Your task to perform on an android device: Check the weather Image 0: 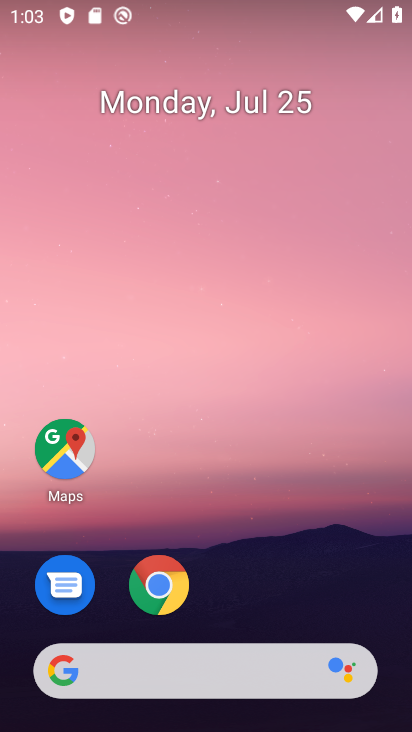
Step 0: drag from (225, 650) to (243, 8)
Your task to perform on an android device: Check the weather Image 1: 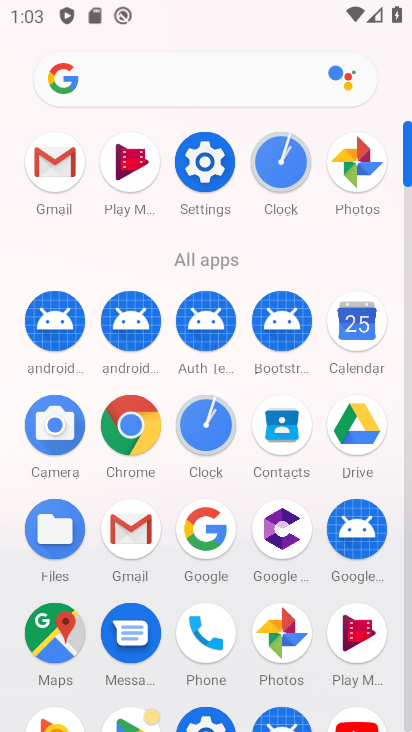
Step 1: click (132, 439)
Your task to perform on an android device: Check the weather Image 2: 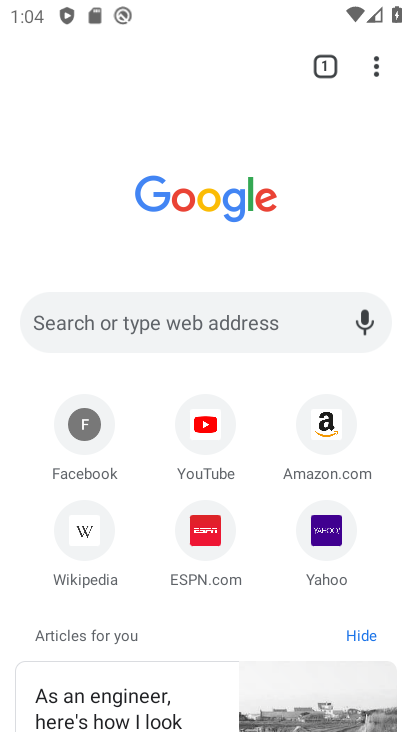
Step 2: click (208, 333)
Your task to perform on an android device: Check the weather Image 3: 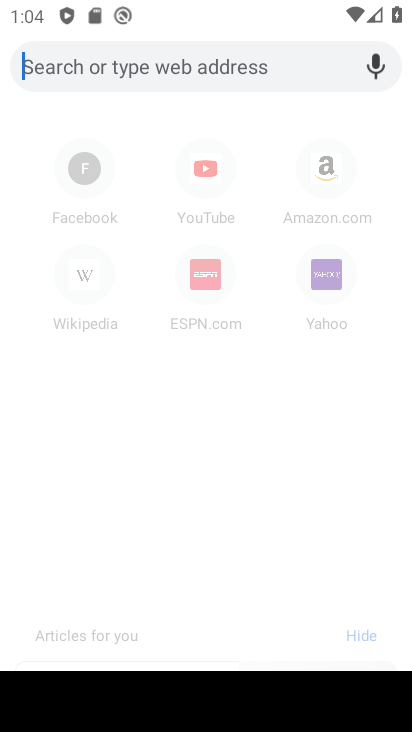
Step 3: type "weather"
Your task to perform on an android device: Check the weather Image 4: 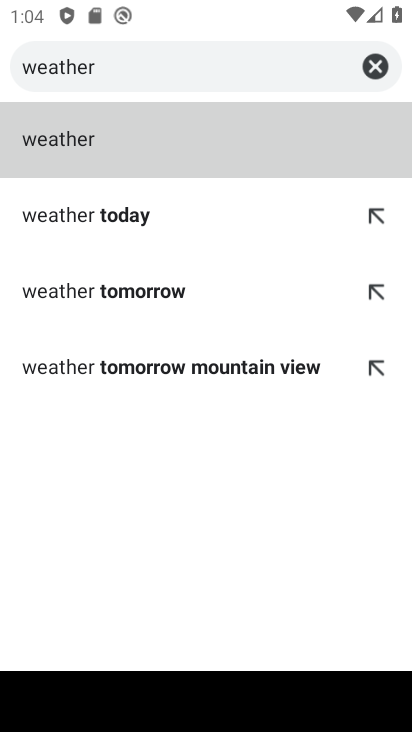
Step 4: click (109, 131)
Your task to perform on an android device: Check the weather Image 5: 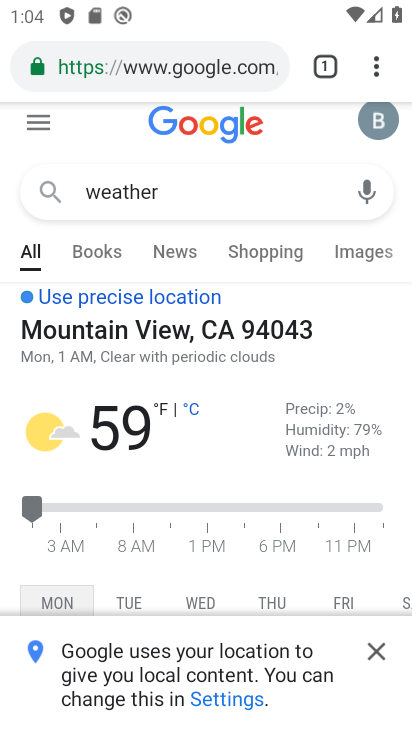
Step 5: task complete